Your task to perform on an android device: toggle show notifications on the lock screen Image 0: 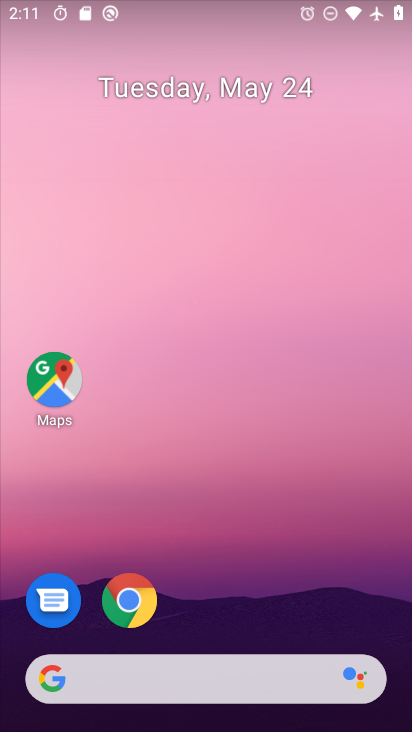
Step 0: drag from (237, 592) to (205, 214)
Your task to perform on an android device: toggle show notifications on the lock screen Image 1: 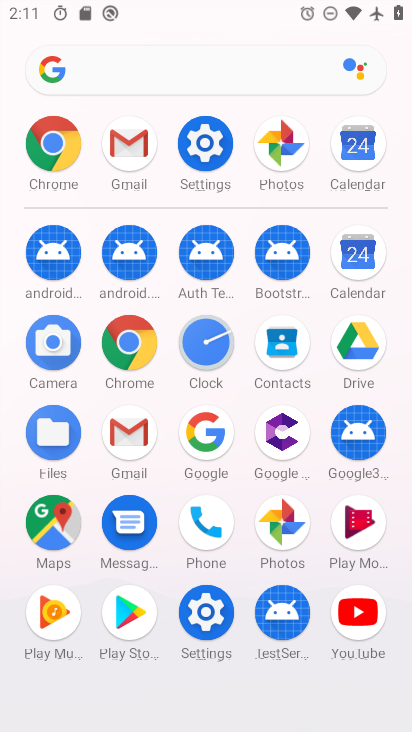
Step 1: click (212, 156)
Your task to perform on an android device: toggle show notifications on the lock screen Image 2: 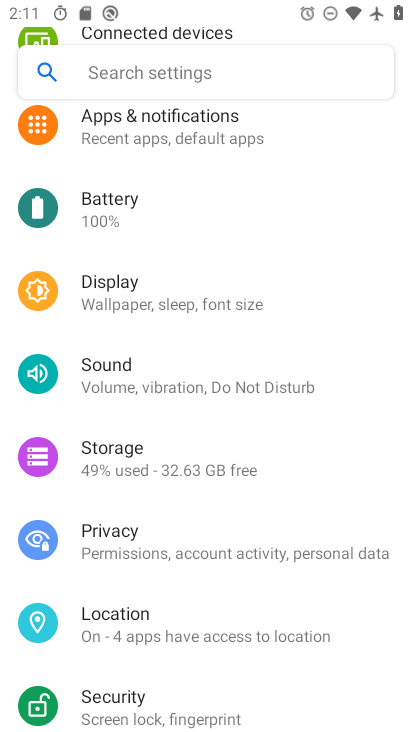
Step 2: click (168, 136)
Your task to perform on an android device: toggle show notifications on the lock screen Image 3: 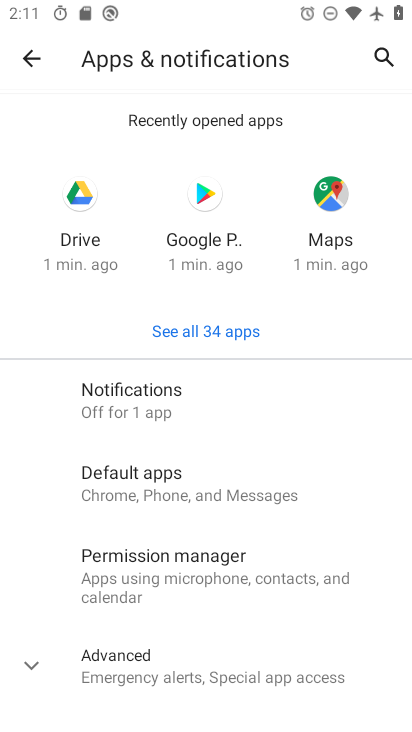
Step 3: click (151, 389)
Your task to perform on an android device: toggle show notifications on the lock screen Image 4: 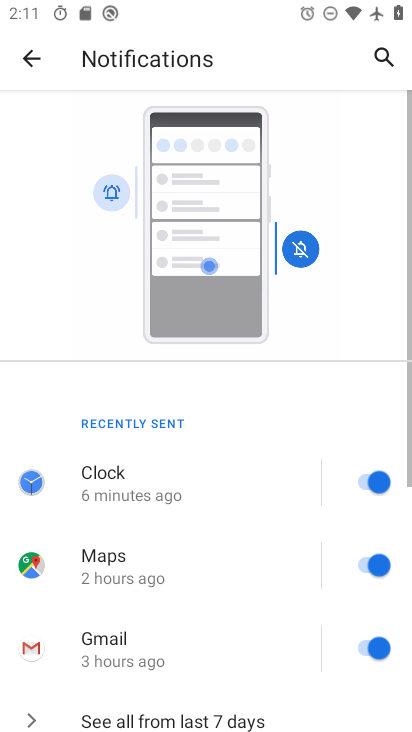
Step 4: drag from (252, 482) to (207, 32)
Your task to perform on an android device: toggle show notifications on the lock screen Image 5: 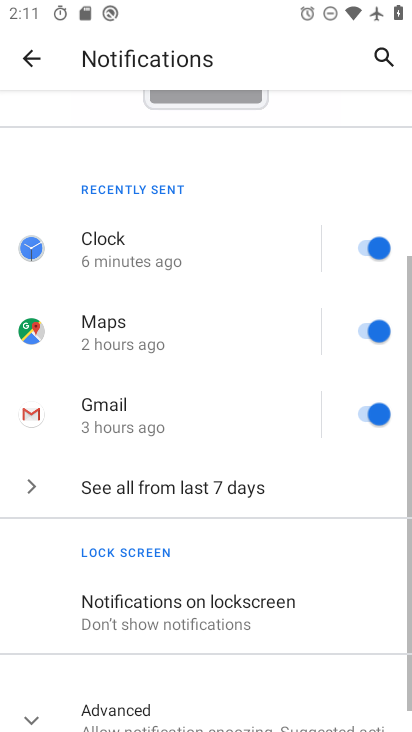
Step 5: click (174, 589)
Your task to perform on an android device: toggle show notifications on the lock screen Image 6: 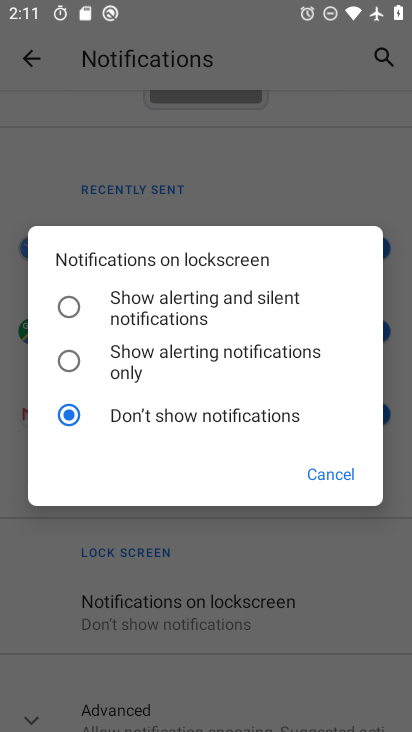
Step 6: click (193, 352)
Your task to perform on an android device: toggle show notifications on the lock screen Image 7: 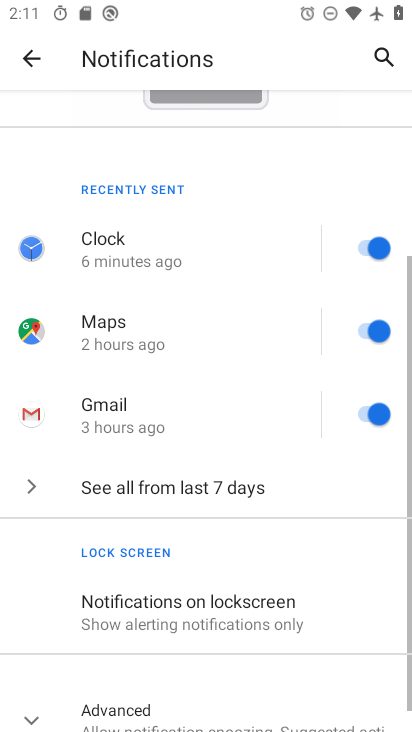
Step 7: task complete